Your task to perform on an android device: turn on improve location accuracy Image 0: 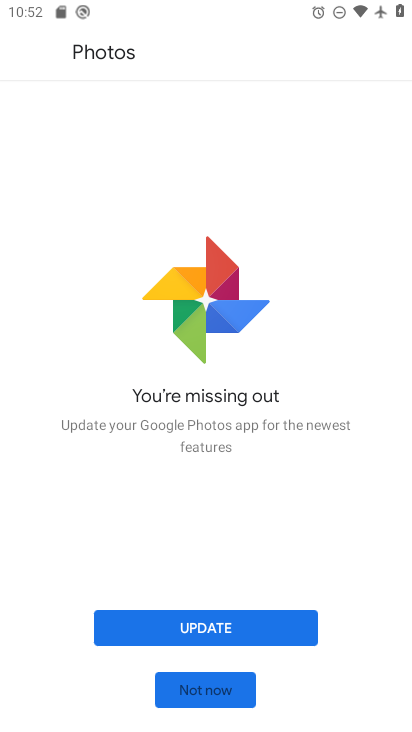
Step 0: press home button
Your task to perform on an android device: turn on improve location accuracy Image 1: 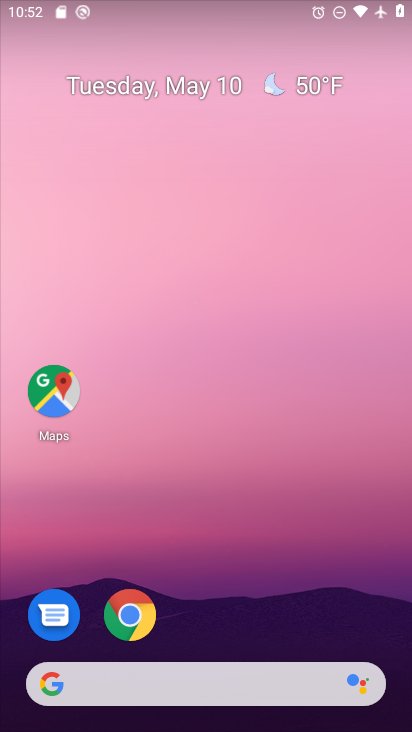
Step 1: drag from (355, 627) to (247, 78)
Your task to perform on an android device: turn on improve location accuracy Image 2: 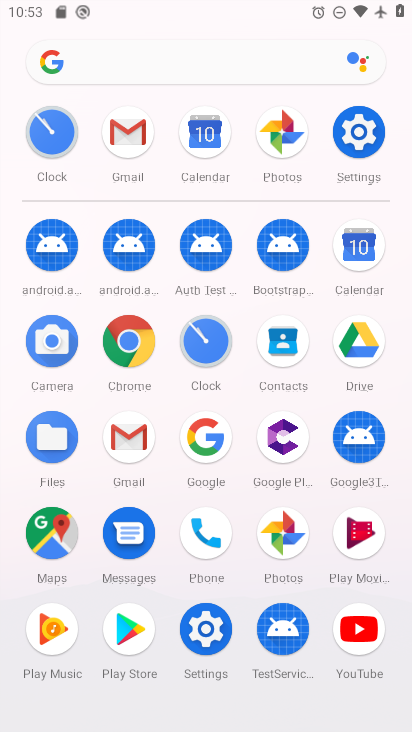
Step 2: click (206, 629)
Your task to perform on an android device: turn on improve location accuracy Image 3: 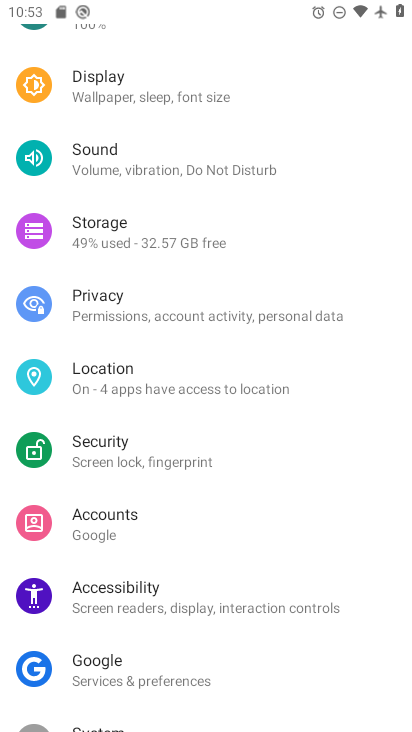
Step 3: click (110, 373)
Your task to perform on an android device: turn on improve location accuracy Image 4: 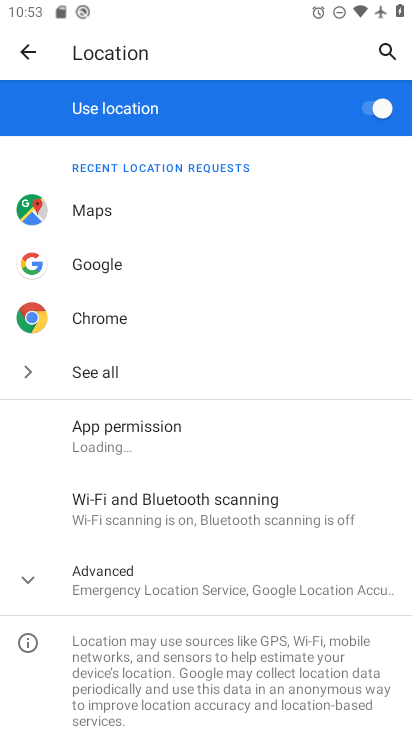
Step 4: click (29, 577)
Your task to perform on an android device: turn on improve location accuracy Image 5: 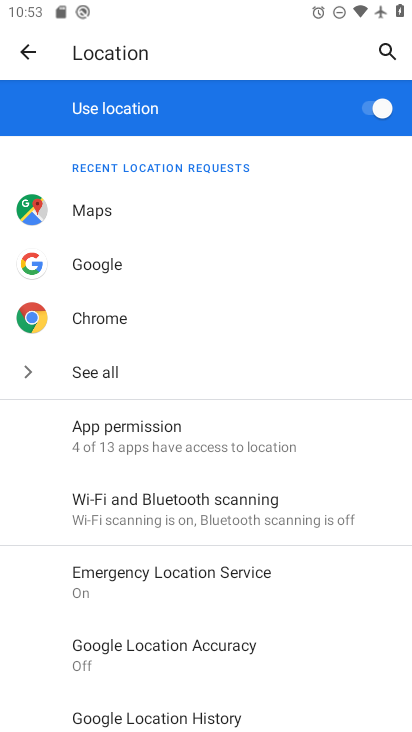
Step 5: drag from (293, 655) to (296, 301)
Your task to perform on an android device: turn on improve location accuracy Image 6: 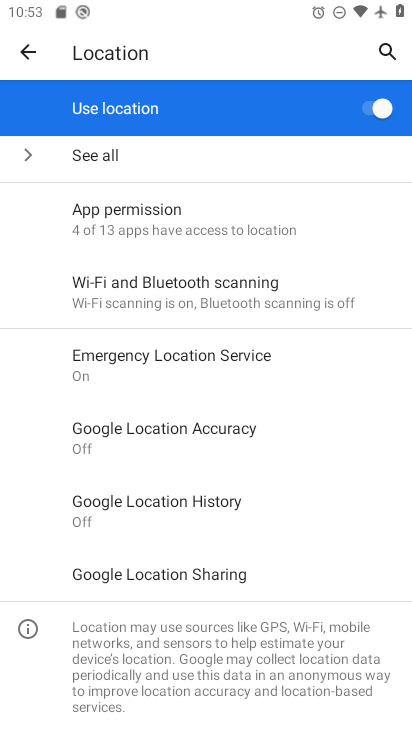
Step 6: click (94, 433)
Your task to perform on an android device: turn on improve location accuracy Image 7: 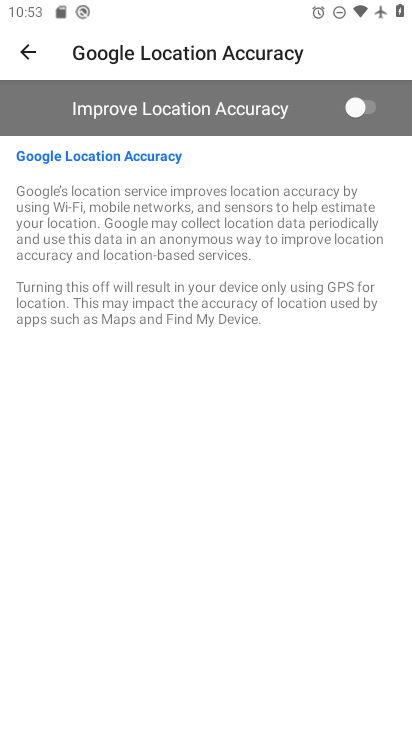
Step 7: click (367, 105)
Your task to perform on an android device: turn on improve location accuracy Image 8: 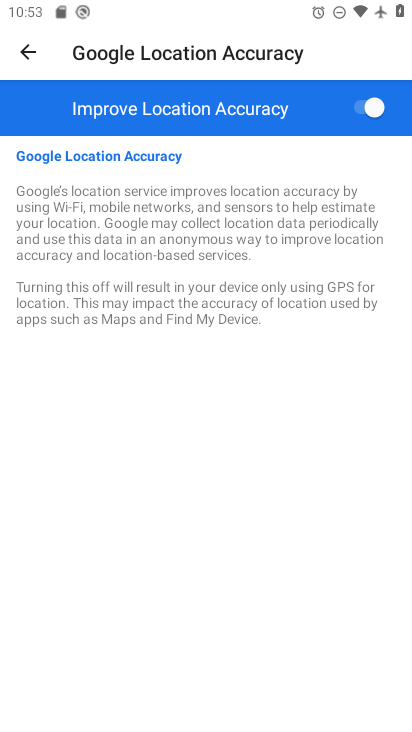
Step 8: task complete